Your task to perform on an android device: find snoozed emails in the gmail app Image 0: 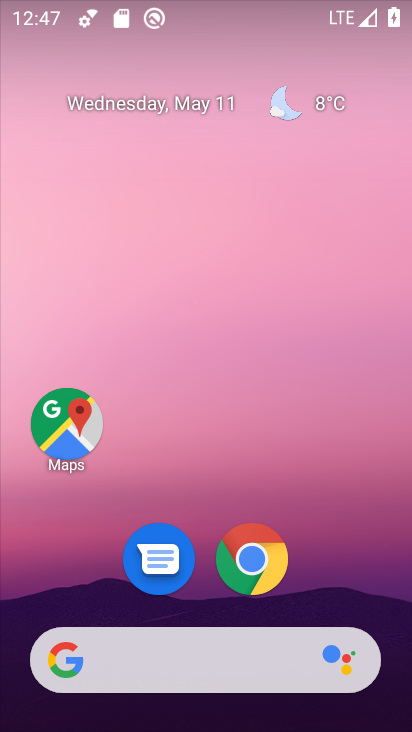
Step 0: drag from (201, 728) to (213, 93)
Your task to perform on an android device: find snoozed emails in the gmail app Image 1: 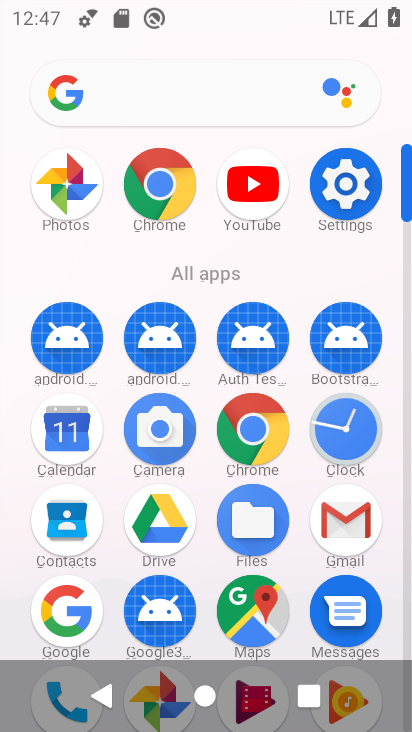
Step 1: click (345, 521)
Your task to perform on an android device: find snoozed emails in the gmail app Image 2: 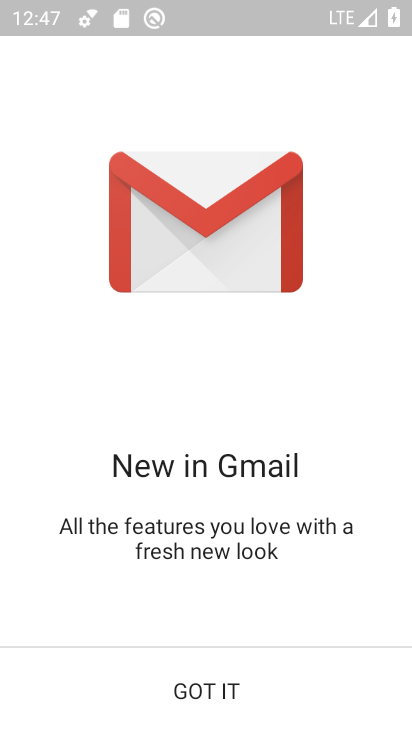
Step 2: click (228, 677)
Your task to perform on an android device: find snoozed emails in the gmail app Image 3: 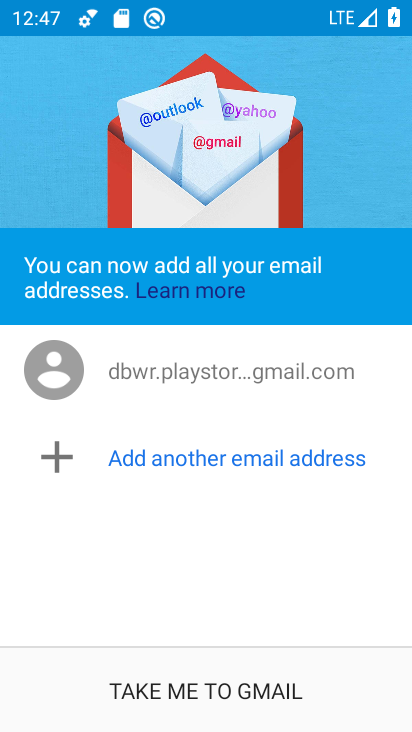
Step 3: click (216, 685)
Your task to perform on an android device: find snoozed emails in the gmail app Image 4: 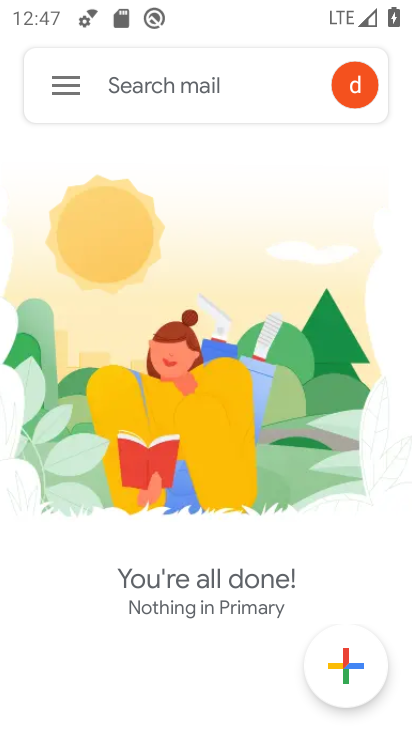
Step 4: click (60, 79)
Your task to perform on an android device: find snoozed emails in the gmail app Image 5: 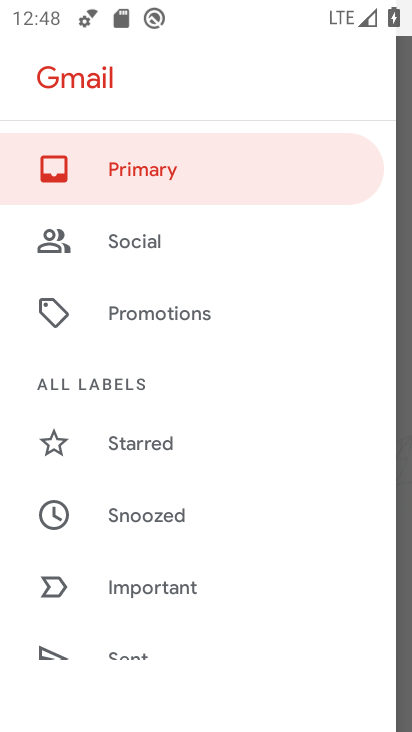
Step 5: click (143, 516)
Your task to perform on an android device: find snoozed emails in the gmail app Image 6: 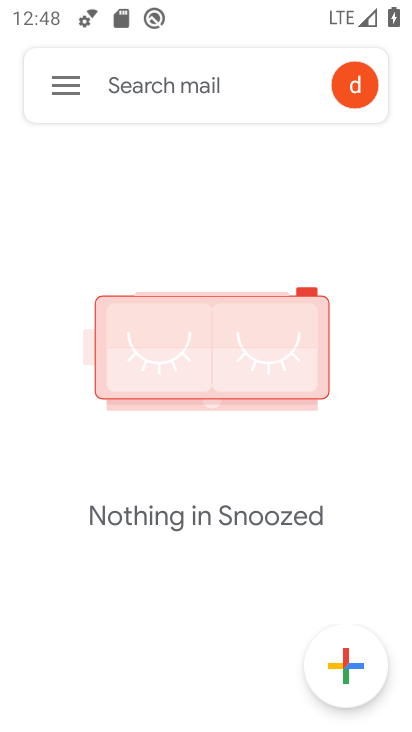
Step 6: task complete